Your task to perform on an android device: turn off airplane mode Image 0: 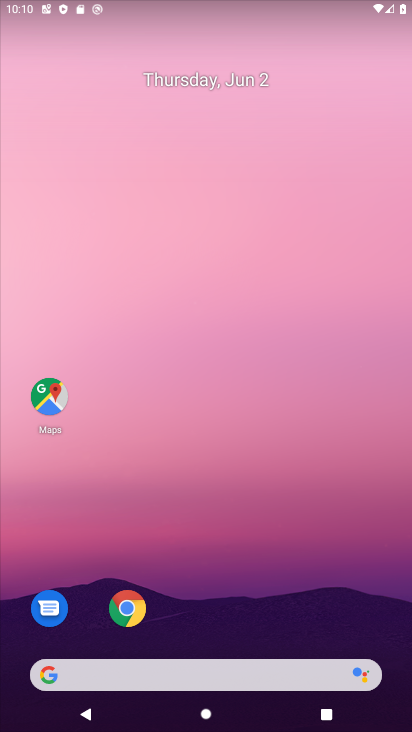
Step 0: drag from (216, 629) to (298, 86)
Your task to perform on an android device: turn off airplane mode Image 1: 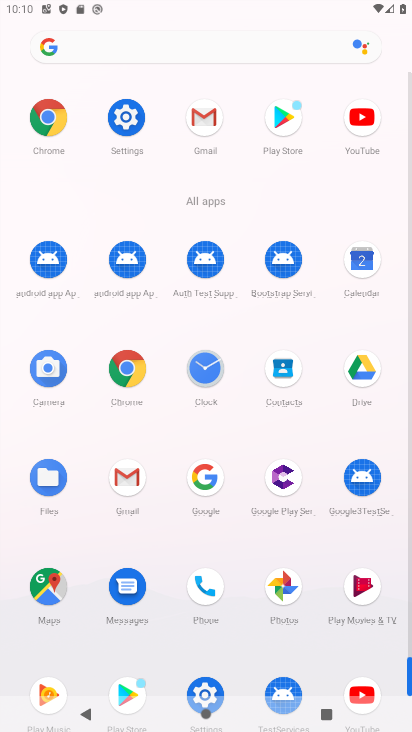
Step 1: drag from (169, 634) to (208, 401)
Your task to perform on an android device: turn off airplane mode Image 2: 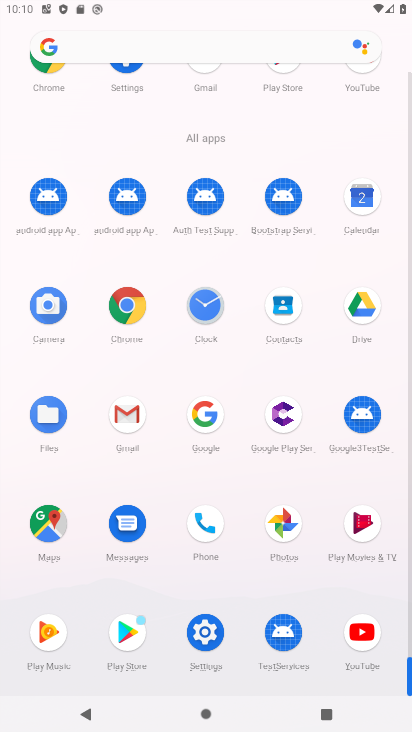
Step 2: click (206, 643)
Your task to perform on an android device: turn off airplane mode Image 3: 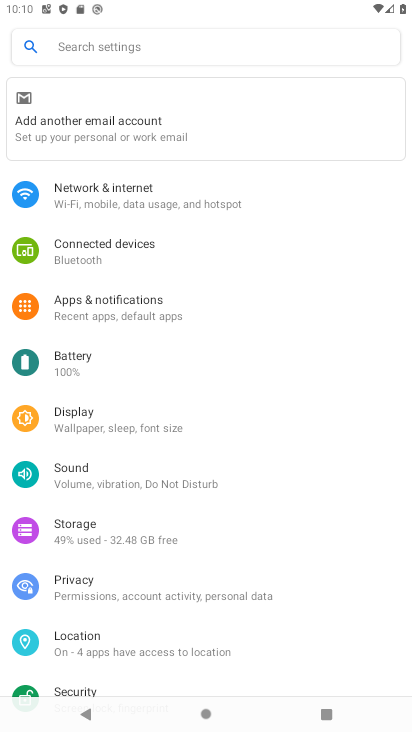
Step 3: click (202, 210)
Your task to perform on an android device: turn off airplane mode Image 4: 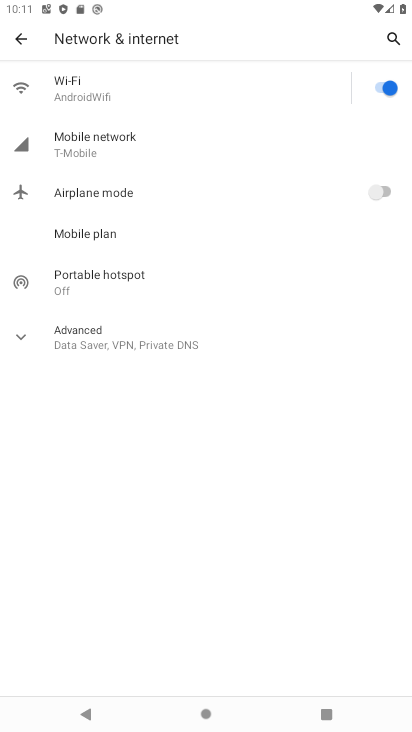
Step 4: task complete